Your task to perform on an android device: set the timer Image 0: 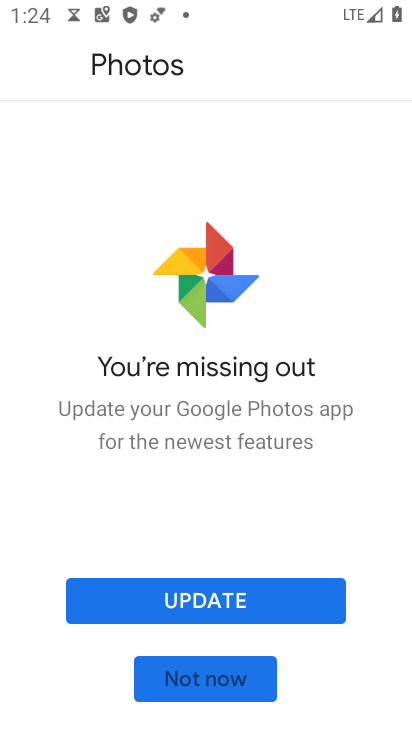
Step 0: press home button
Your task to perform on an android device: set the timer Image 1: 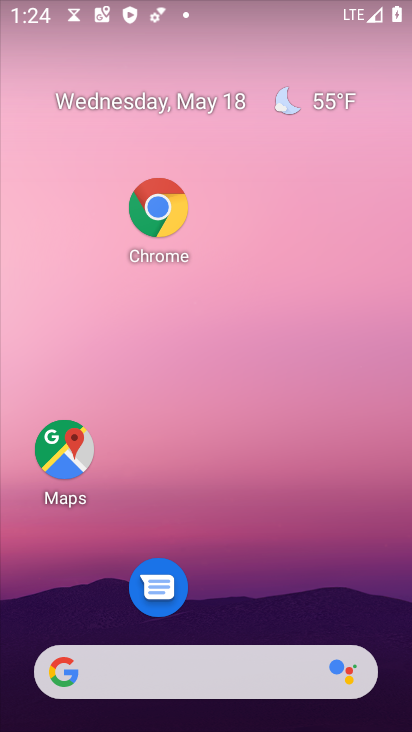
Step 1: drag from (276, 586) to (311, 179)
Your task to perform on an android device: set the timer Image 2: 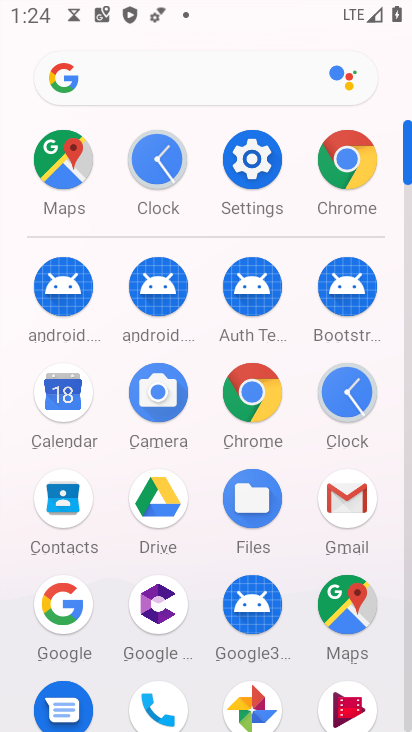
Step 2: click (342, 397)
Your task to perform on an android device: set the timer Image 3: 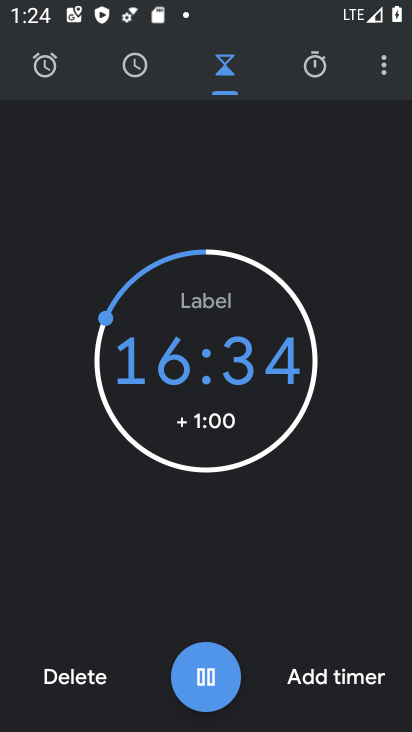
Step 3: click (83, 682)
Your task to perform on an android device: set the timer Image 4: 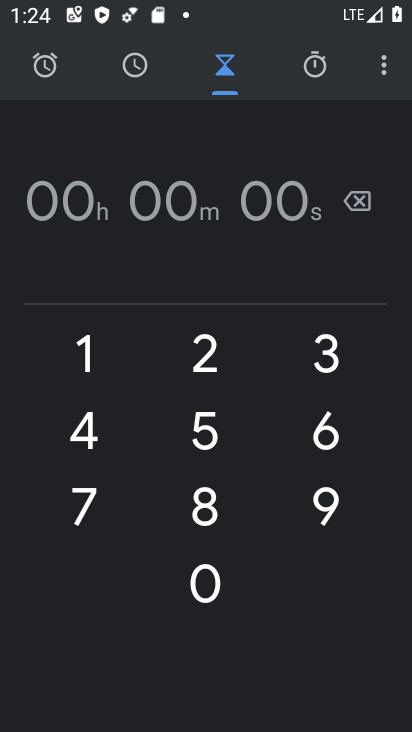
Step 4: click (324, 68)
Your task to perform on an android device: set the timer Image 5: 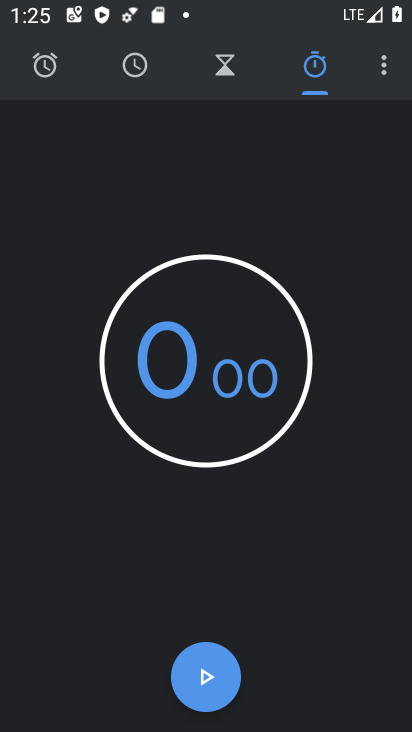
Step 5: click (220, 685)
Your task to perform on an android device: set the timer Image 6: 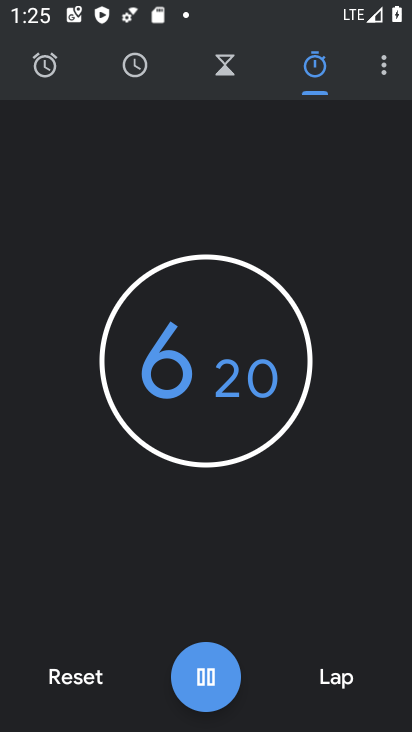
Step 6: click (204, 677)
Your task to perform on an android device: set the timer Image 7: 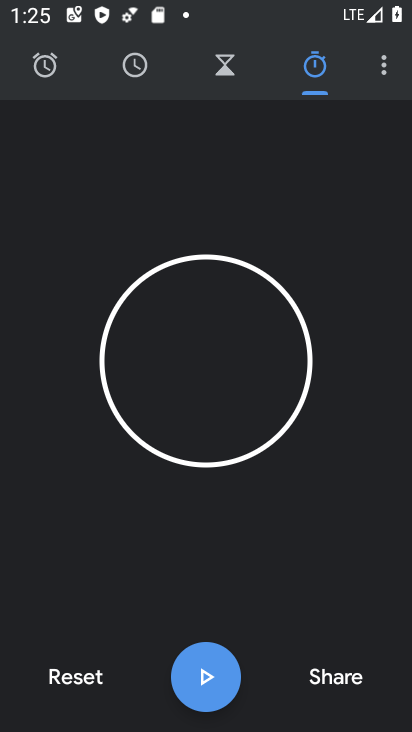
Step 7: click (332, 685)
Your task to perform on an android device: set the timer Image 8: 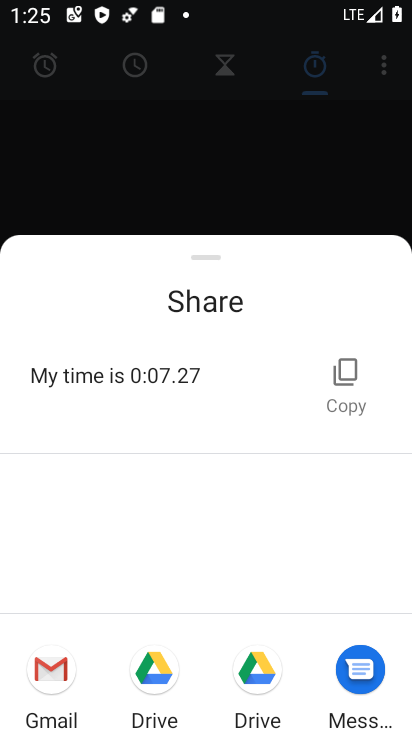
Step 8: click (299, 195)
Your task to perform on an android device: set the timer Image 9: 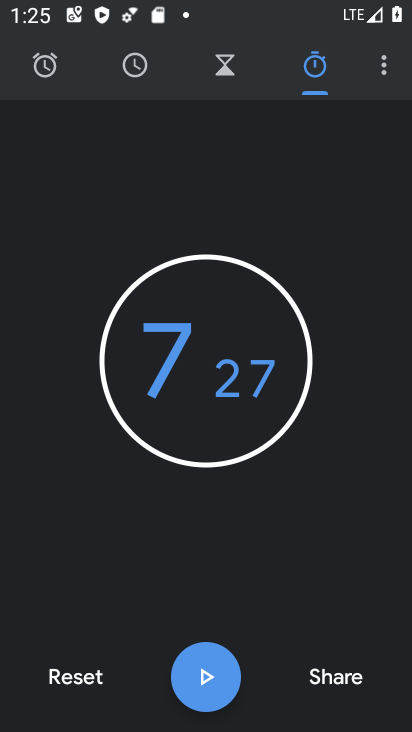
Step 9: task complete